Your task to perform on an android device: clear history in the chrome app Image 0: 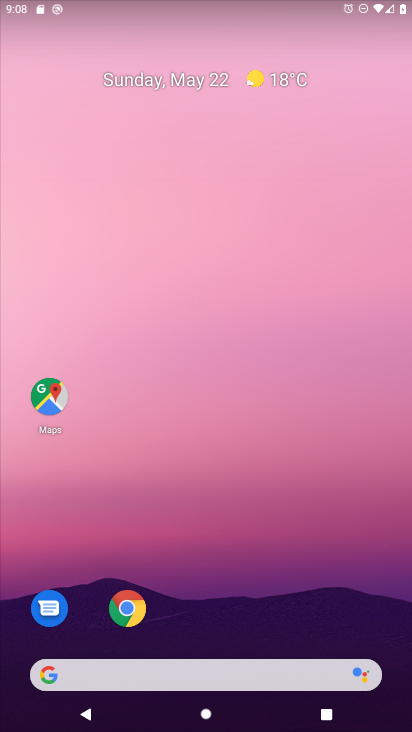
Step 0: click (129, 614)
Your task to perform on an android device: clear history in the chrome app Image 1: 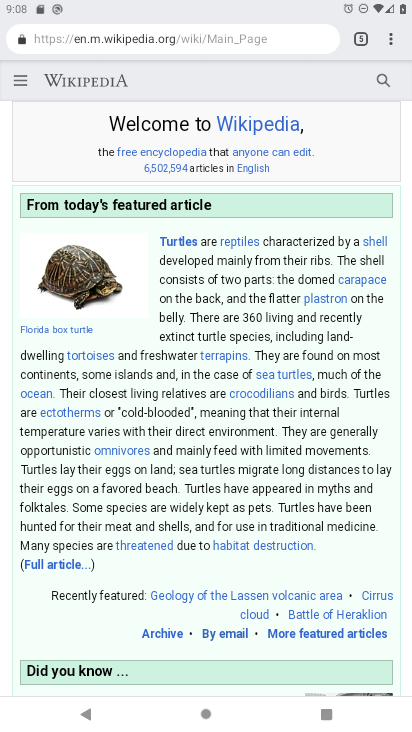
Step 1: click (390, 44)
Your task to perform on an android device: clear history in the chrome app Image 2: 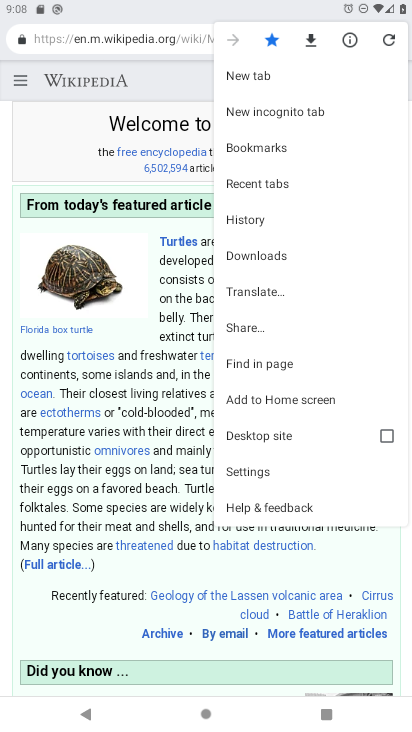
Step 2: click (246, 219)
Your task to perform on an android device: clear history in the chrome app Image 3: 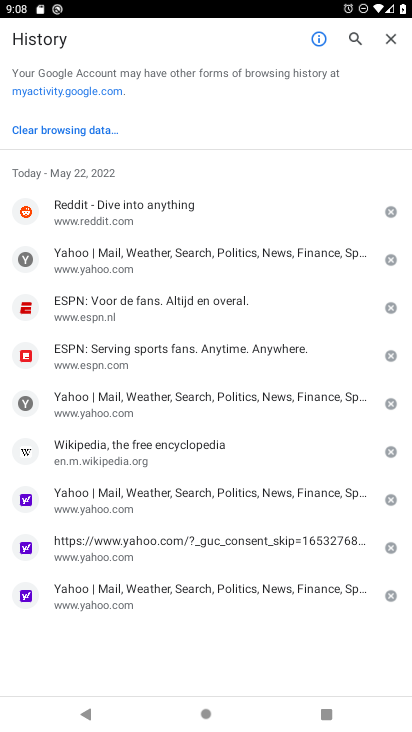
Step 3: click (87, 124)
Your task to perform on an android device: clear history in the chrome app Image 4: 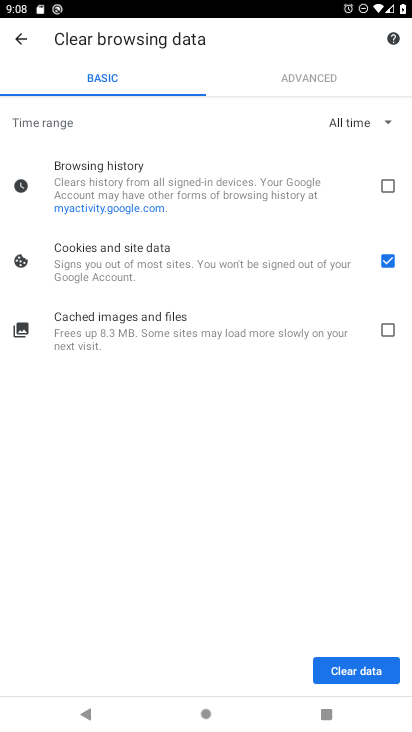
Step 4: click (386, 187)
Your task to perform on an android device: clear history in the chrome app Image 5: 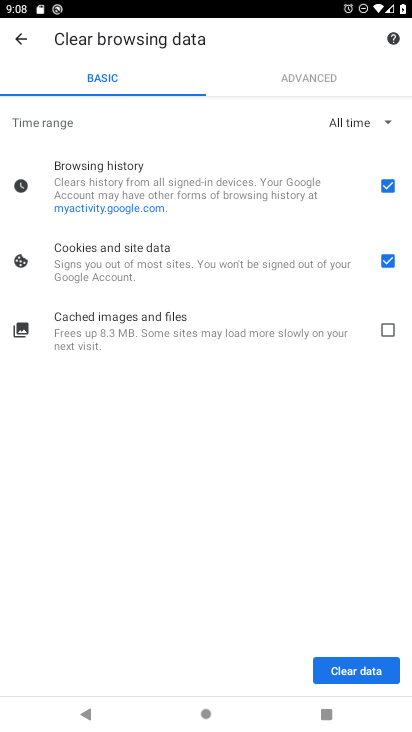
Step 5: click (389, 259)
Your task to perform on an android device: clear history in the chrome app Image 6: 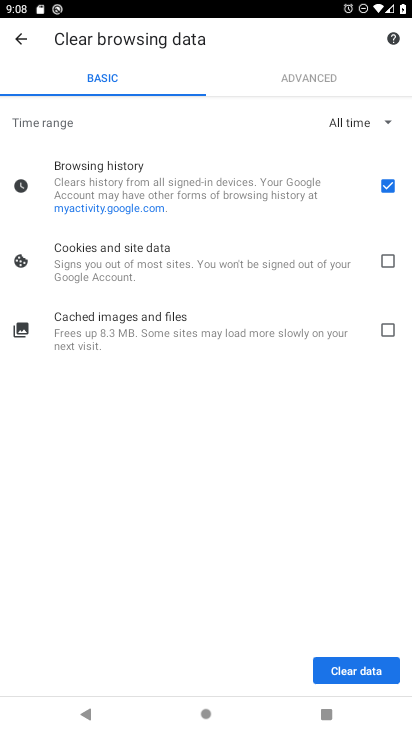
Step 6: click (341, 665)
Your task to perform on an android device: clear history in the chrome app Image 7: 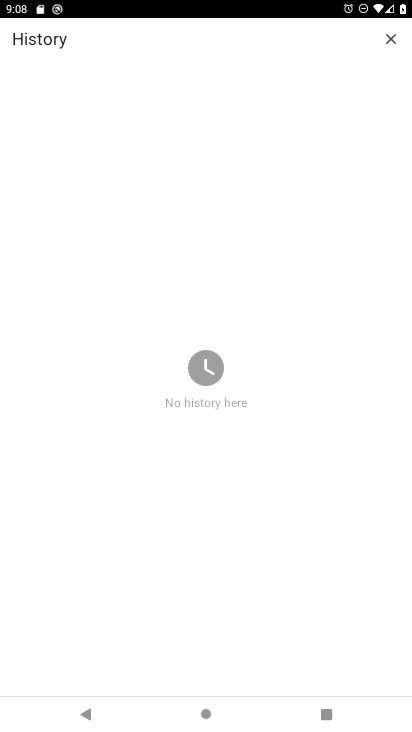
Step 7: task complete